Your task to perform on an android device: Go to settings Image 0: 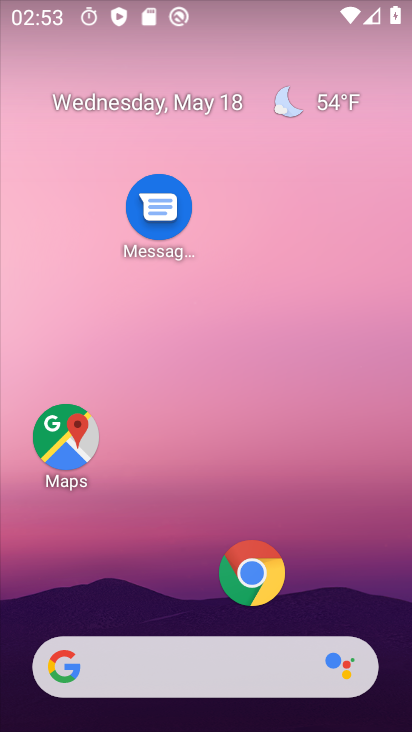
Step 0: drag from (184, 594) to (198, 245)
Your task to perform on an android device: Go to settings Image 1: 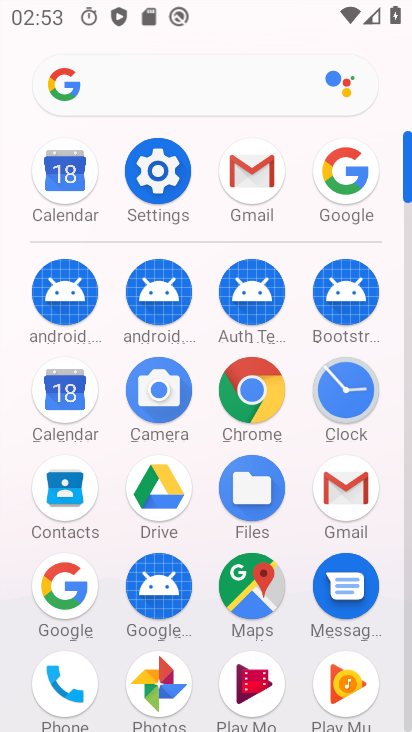
Step 1: click (177, 175)
Your task to perform on an android device: Go to settings Image 2: 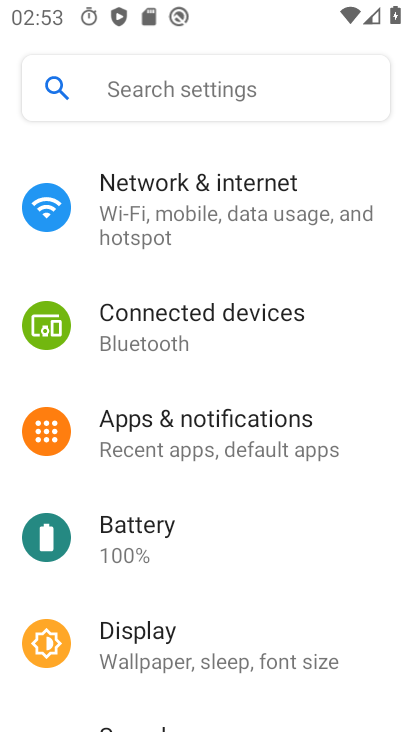
Step 2: task complete